Your task to perform on an android device: Go to wifi settings Image 0: 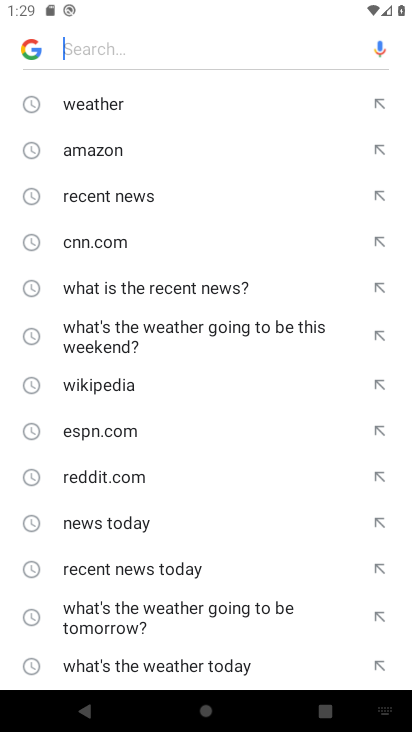
Step 0: press home button
Your task to perform on an android device: Go to wifi settings Image 1: 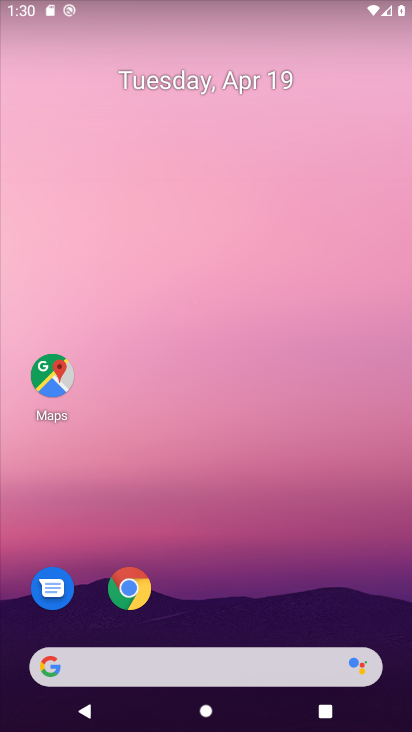
Step 1: drag from (180, 583) to (178, 98)
Your task to perform on an android device: Go to wifi settings Image 2: 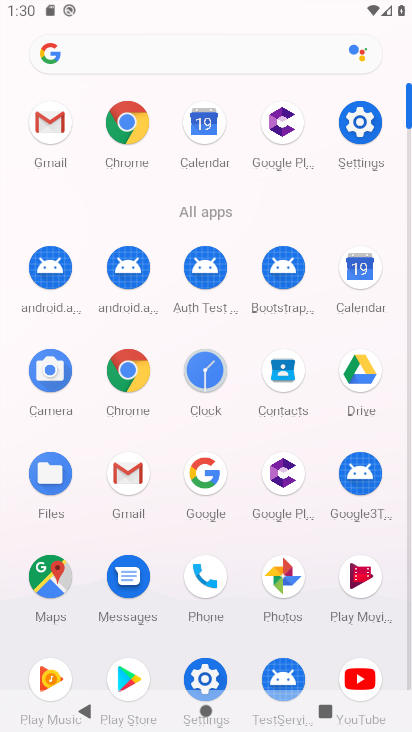
Step 2: click (359, 123)
Your task to perform on an android device: Go to wifi settings Image 3: 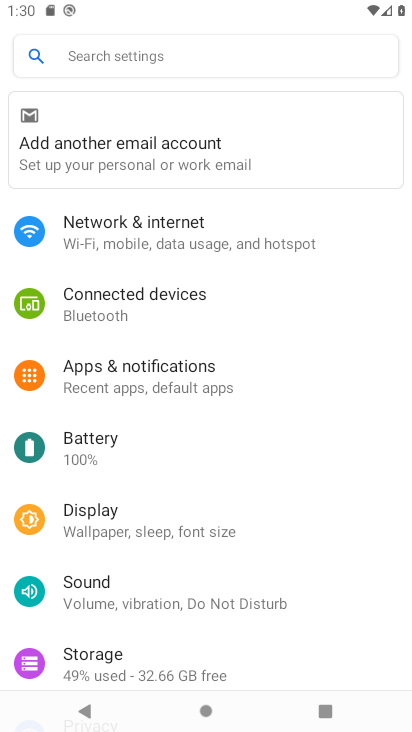
Step 3: click (212, 220)
Your task to perform on an android device: Go to wifi settings Image 4: 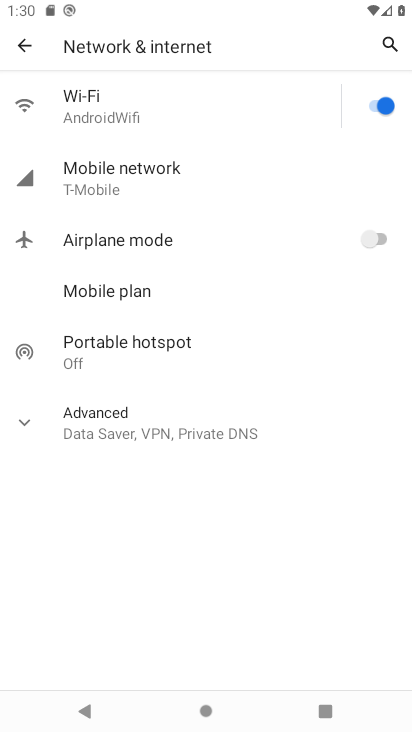
Step 4: click (120, 116)
Your task to perform on an android device: Go to wifi settings Image 5: 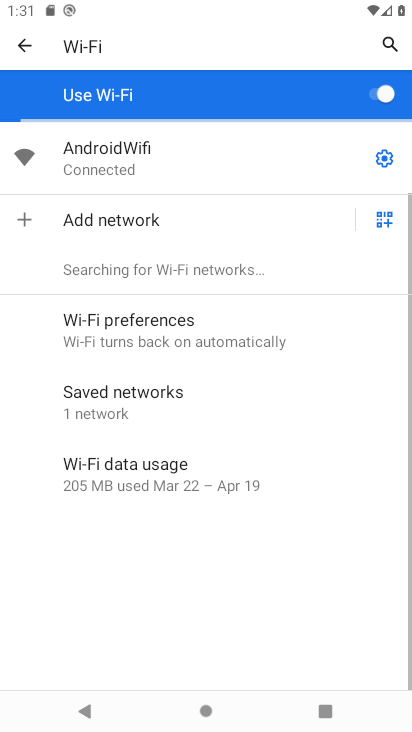
Step 5: task complete